Your task to perform on an android device: Clear the shopping cart on newegg.com. Search for "usb-c to usb-a" on newegg.com, select the first entry, and add it to the cart. Image 0: 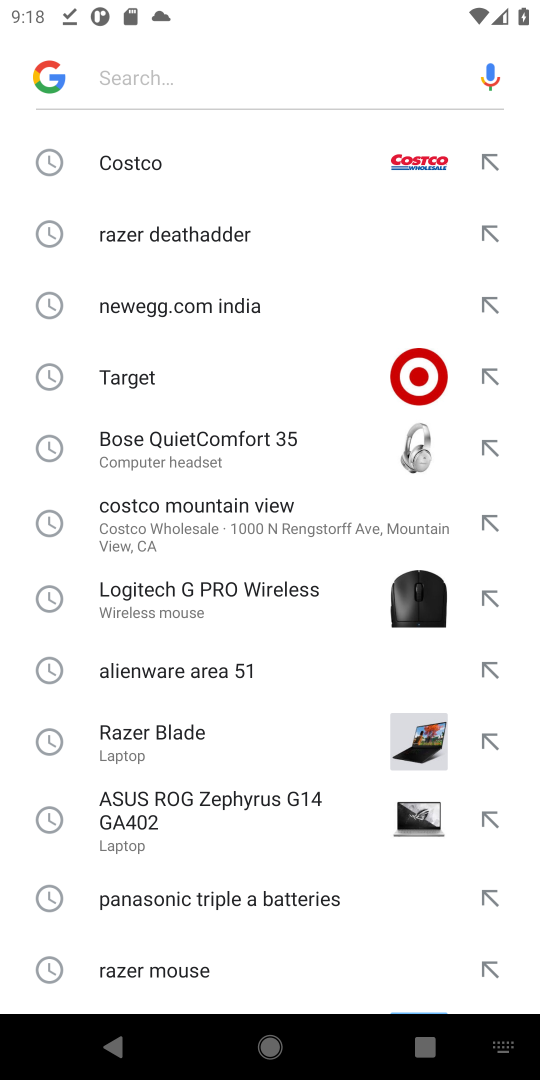
Step 0: click (337, 150)
Your task to perform on an android device: Clear the shopping cart on newegg.com. Search for "usb-c to usb-a" on newegg.com, select the first entry, and add it to the cart. Image 1: 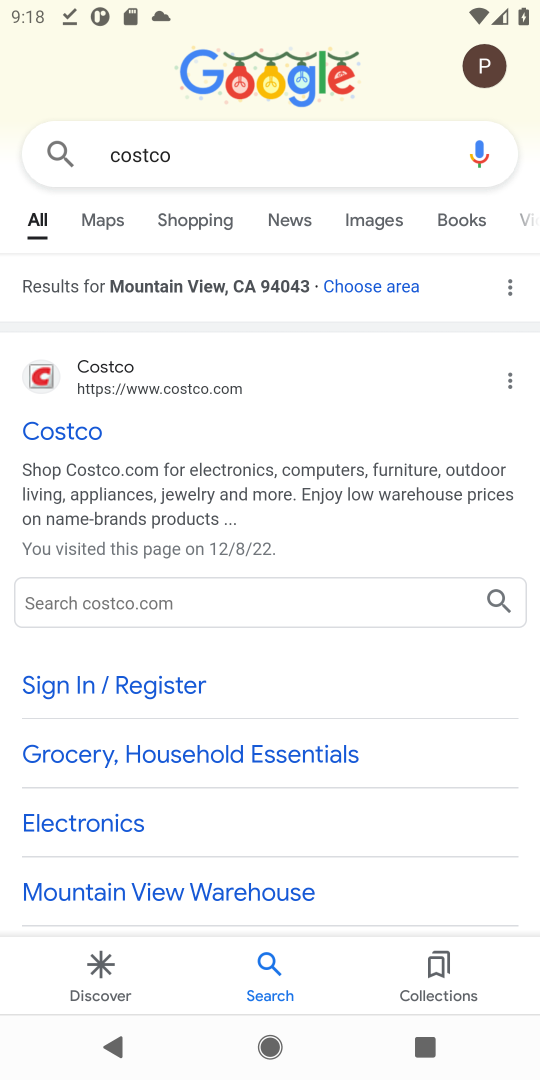
Step 1: click (56, 447)
Your task to perform on an android device: Clear the shopping cart on newegg.com. Search for "usb-c to usb-a" on newegg.com, select the first entry, and add it to the cart. Image 2: 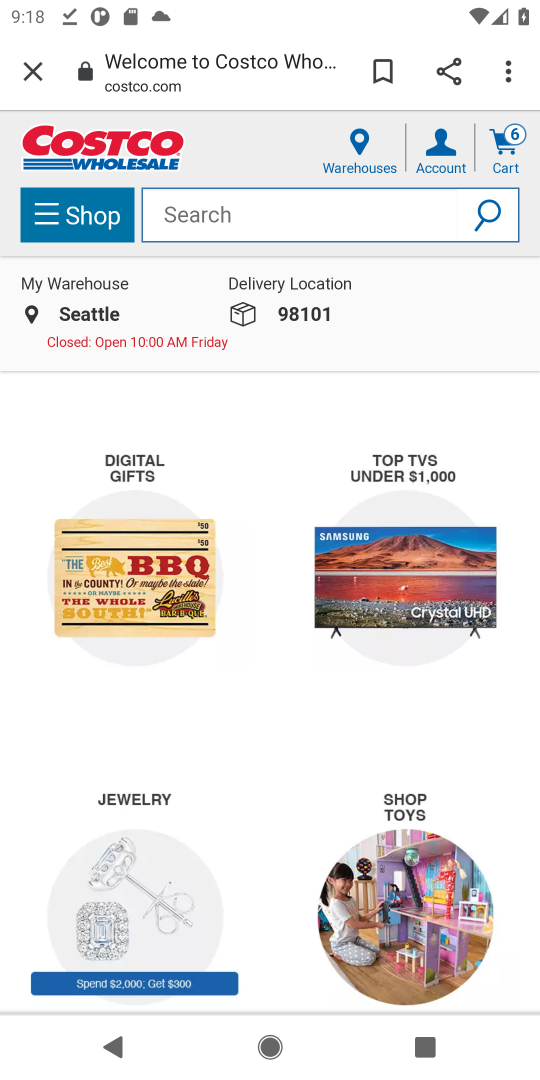
Step 2: click (236, 220)
Your task to perform on an android device: Clear the shopping cart on newegg.com. Search for "usb-c to usb-a" on newegg.com, select the first entry, and add it to the cart. Image 3: 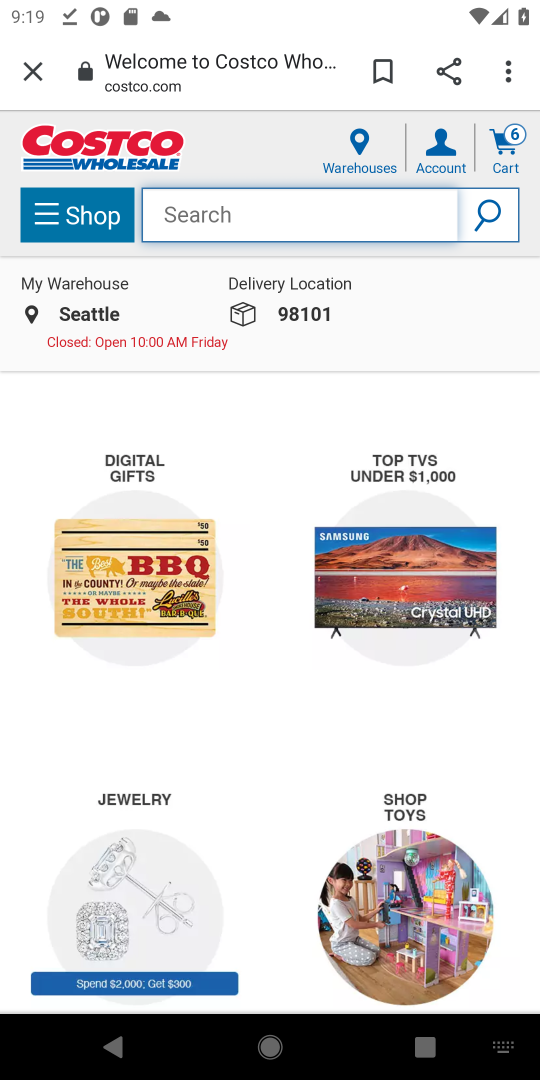
Step 3: type "usb-c to usb-a"
Your task to perform on an android device: Clear the shopping cart on newegg.com. Search for "usb-c to usb-a" on newegg.com, select the first entry, and add it to the cart. Image 4: 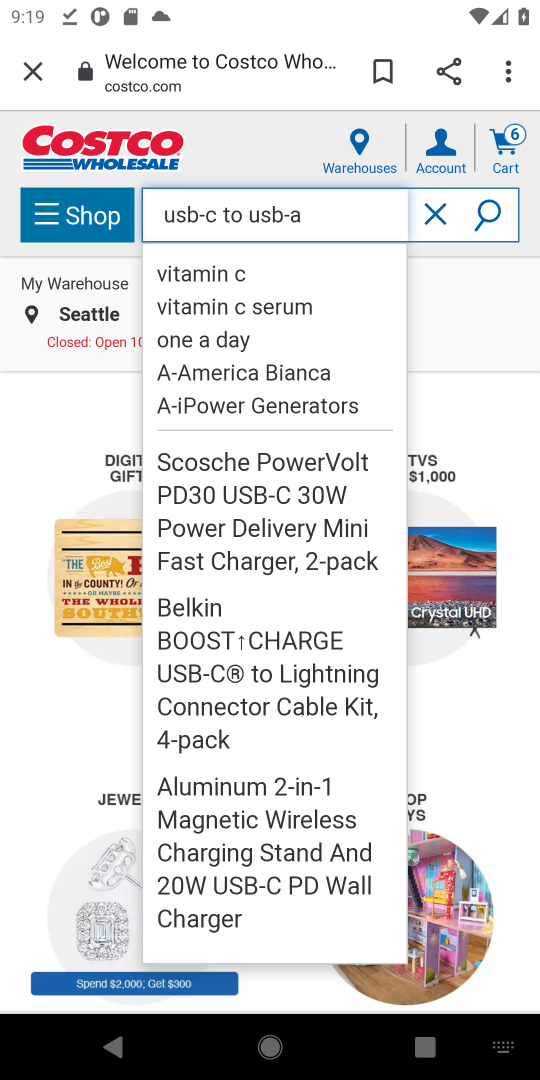
Step 4: click (500, 219)
Your task to perform on an android device: Clear the shopping cart on newegg.com. Search for "usb-c to usb-a" on newegg.com, select the first entry, and add it to the cart. Image 5: 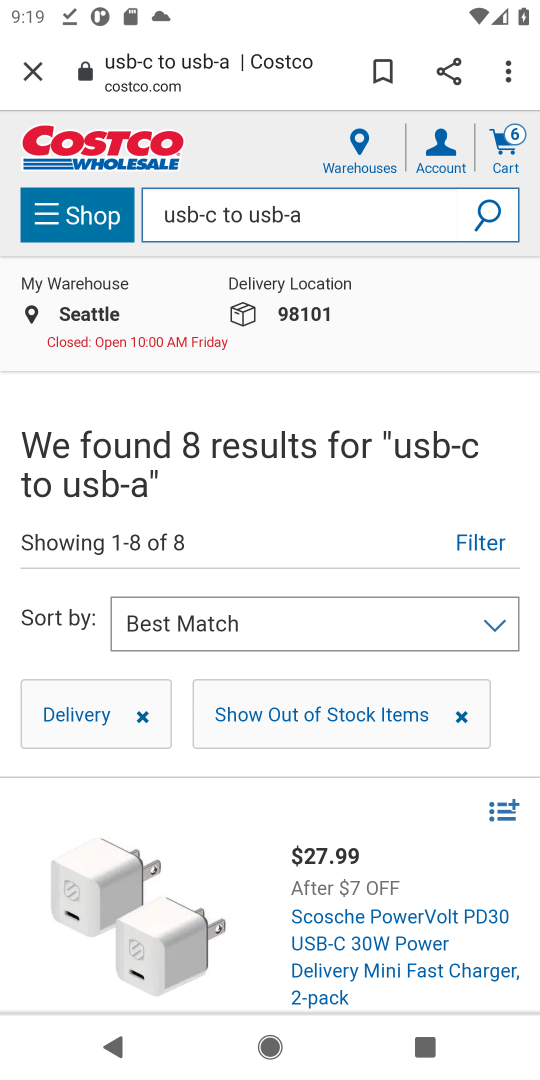
Step 5: drag from (325, 929) to (309, 482)
Your task to perform on an android device: Clear the shopping cart on newegg.com. Search for "usb-c to usb-a" on newegg.com, select the first entry, and add it to the cart. Image 6: 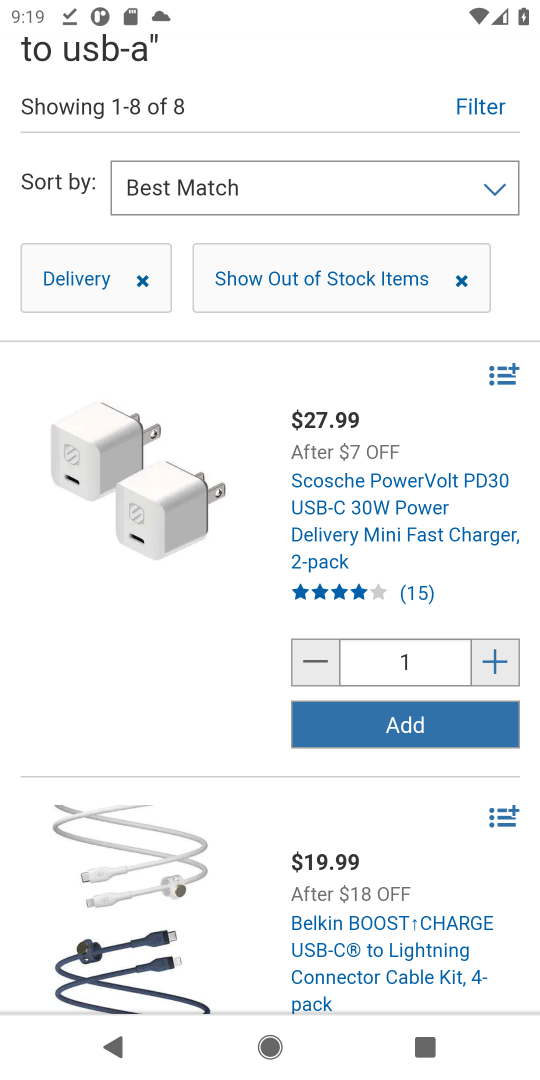
Step 6: click (382, 741)
Your task to perform on an android device: Clear the shopping cart on newegg.com. Search for "usb-c to usb-a" on newegg.com, select the first entry, and add it to the cart. Image 7: 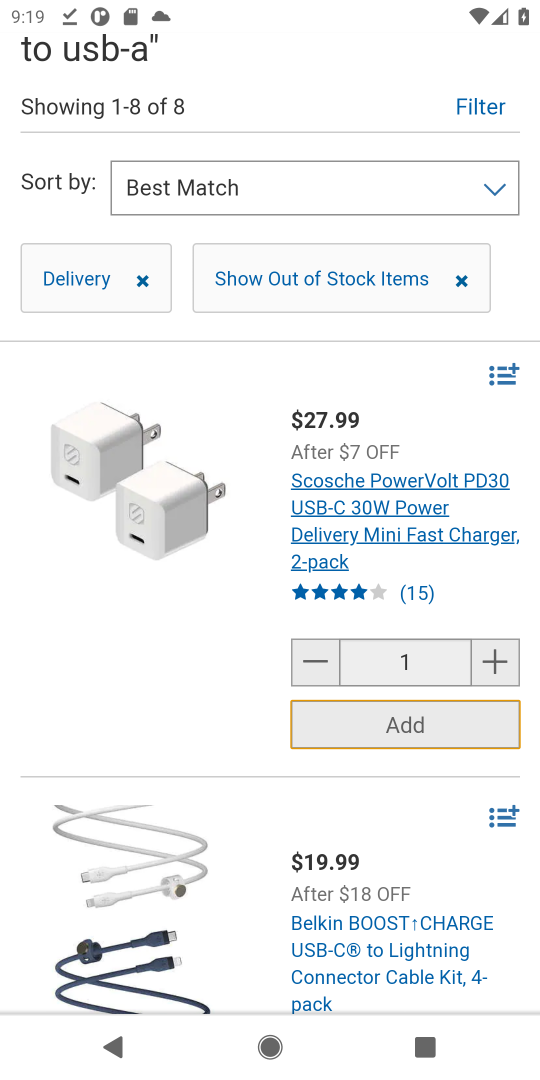
Step 7: task complete